Your task to perform on an android device: Open the Play Movies app and select the watchlist tab. Image 0: 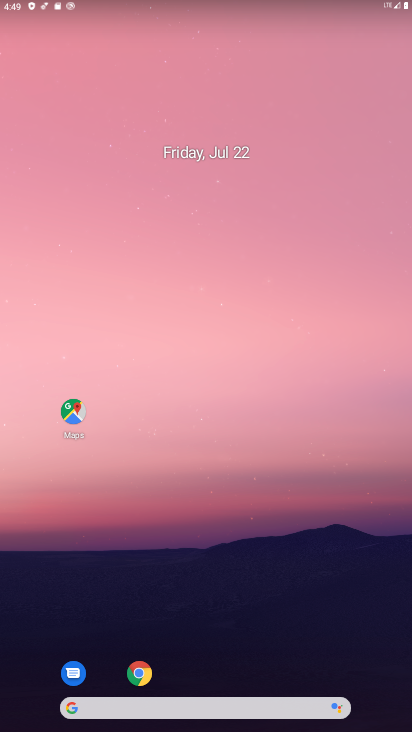
Step 0: press home button
Your task to perform on an android device: Open the Play Movies app and select the watchlist tab. Image 1: 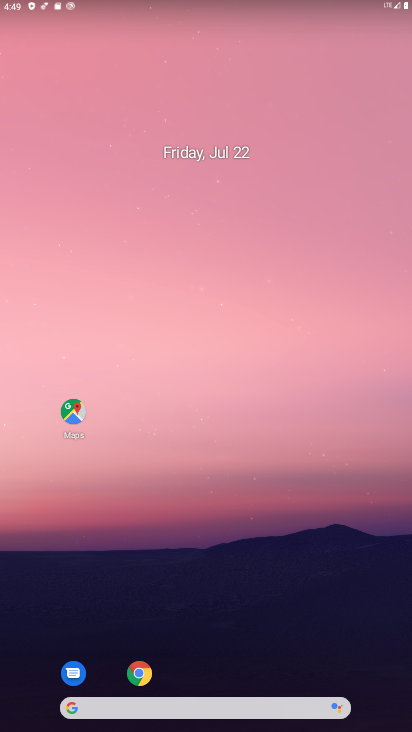
Step 1: drag from (295, 647) to (245, 57)
Your task to perform on an android device: Open the Play Movies app and select the watchlist tab. Image 2: 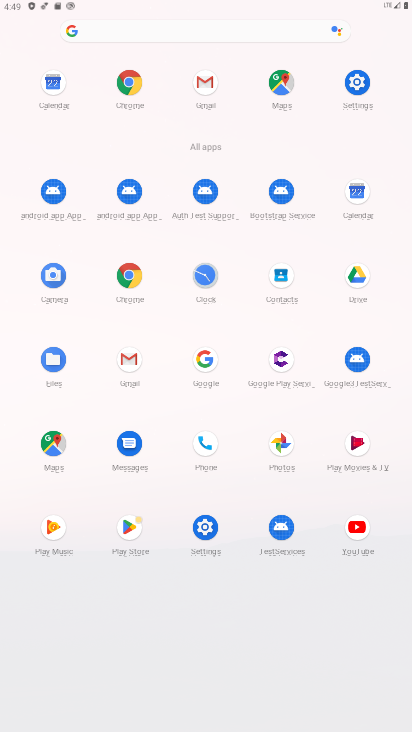
Step 2: click (356, 444)
Your task to perform on an android device: Open the Play Movies app and select the watchlist tab. Image 3: 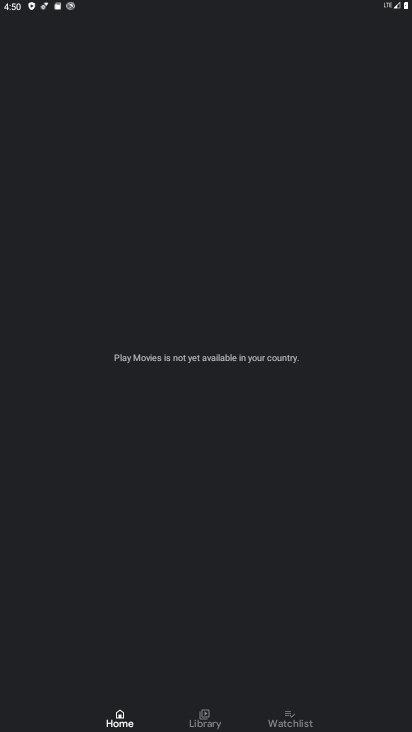
Step 3: click (292, 716)
Your task to perform on an android device: Open the Play Movies app and select the watchlist tab. Image 4: 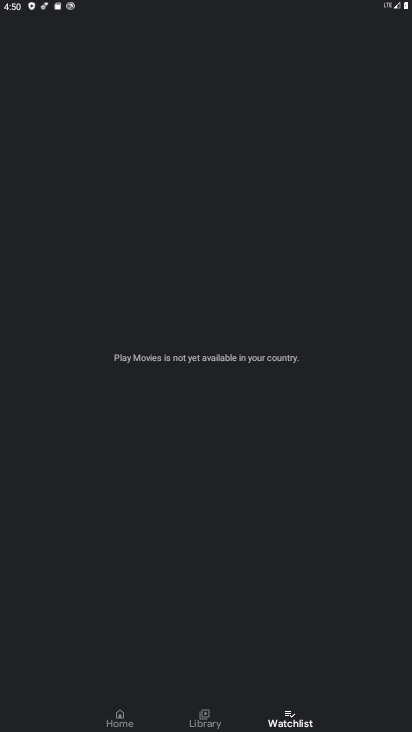
Step 4: task complete